Your task to perform on an android device: Search for Italian restaurants on Maps Image 0: 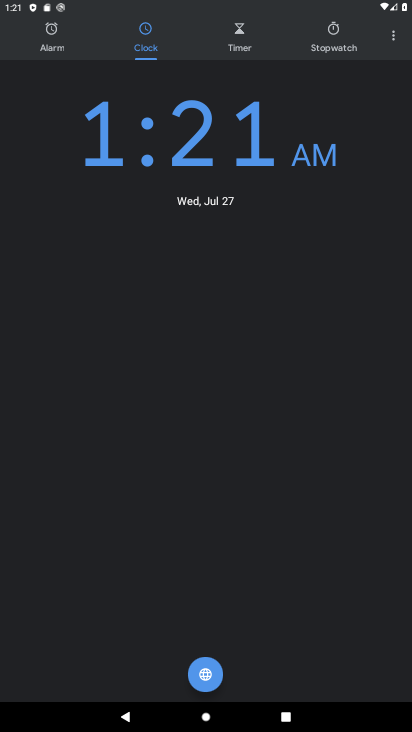
Step 0: press home button
Your task to perform on an android device: Search for Italian restaurants on Maps Image 1: 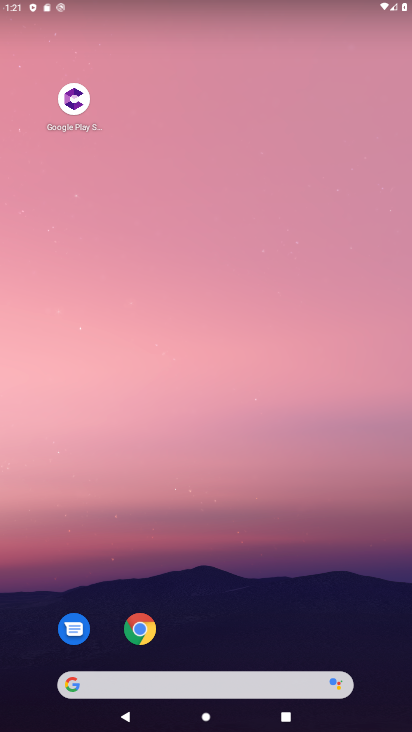
Step 1: drag from (249, 624) to (269, 159)
Your task to perform on an android device: Search for Italian restaurants on Maps Image 2: 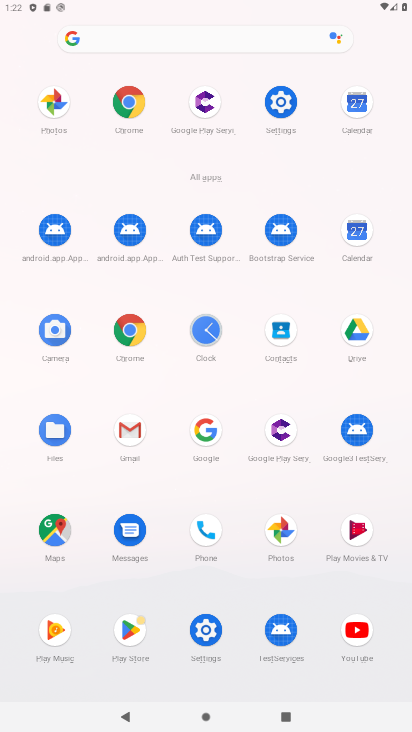
Step 2: click (52, 526)
Your task to perform on an android device: Search for Italian restaurants on Maps Image 3: 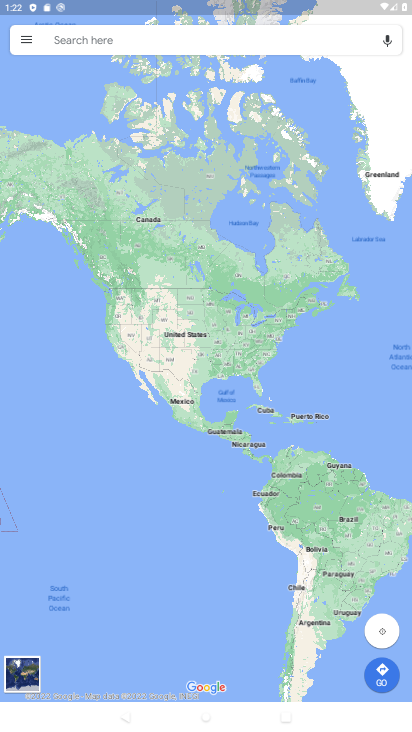
Step 3: click (106, 52)
Your task to perform on an android device: Search for Italian restaurants on Maps Image 4: 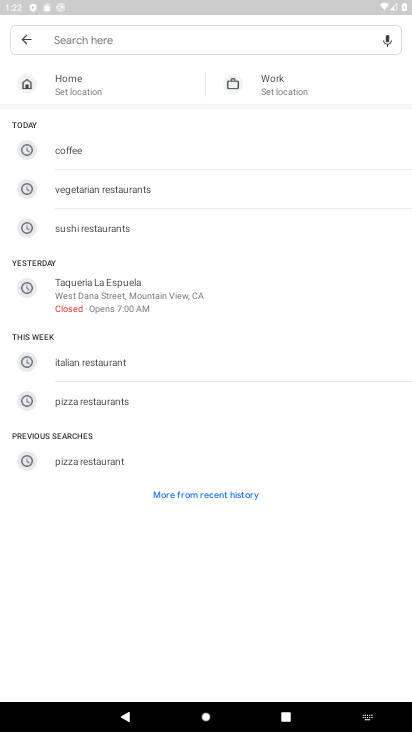
Step 4: click (109, 366)
Your task to perform on an android device: Search for Italian restaurants on Maps Image 5: 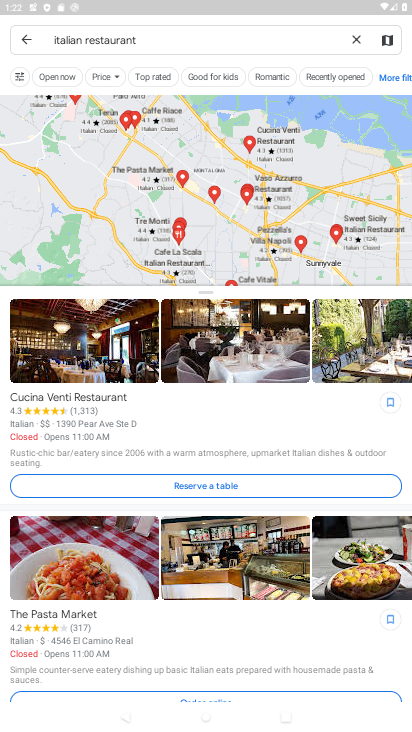
Step 5: task complete